Your task to perform on an android device: Go to Android settings Image 0: 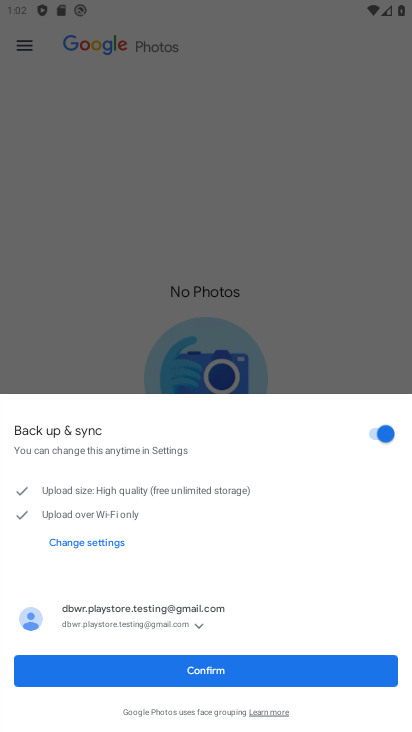
Step 0: press home button
Your task to perform on an android device: Go to Android settings Image 1: 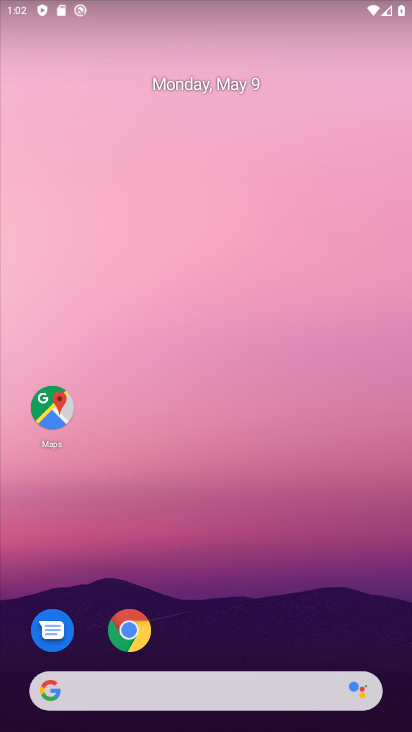
Step 1: drag from (244, 697) to (291, 288)
Your task to perform on an android device: Go to Android settings Image 2: 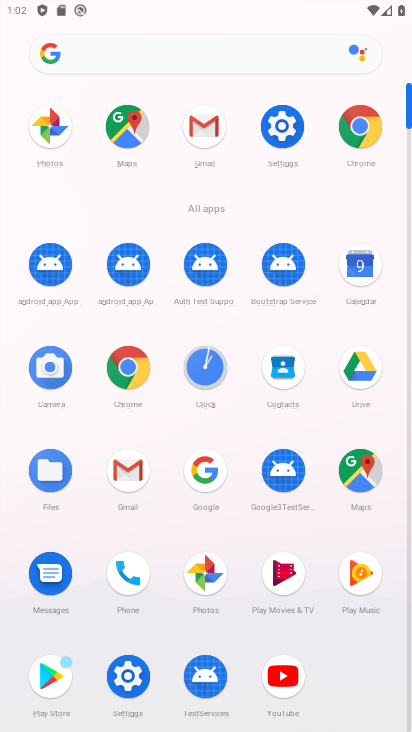
Step 2: click (268, 136)
Your task to perform on an android device: Go to Android settings Image 3: 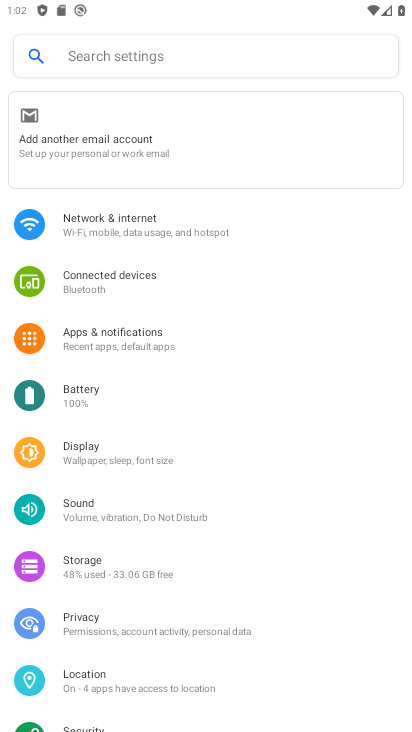
Step 3: click (135, 55)
Your task to perform on an android device: Go to Android settings Image 4: 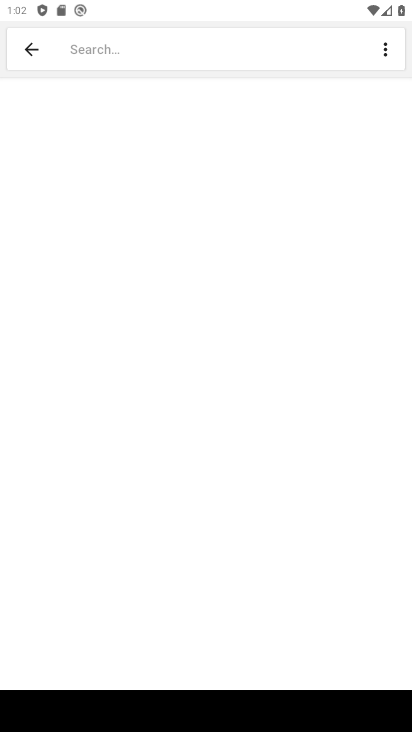
Step 4: drag from (384, 716) to (330, 630)
Your task to perform on an android device: Go to Android settings Image 5: 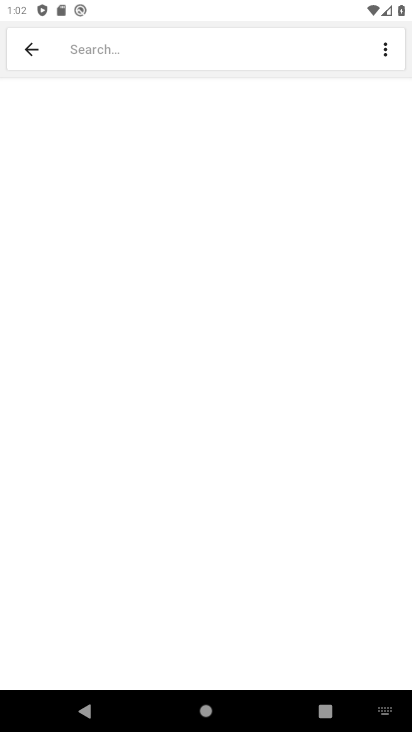
Step 5: click (388, 704)
Your task to perform on an android device: Go to Android settings Image 6: 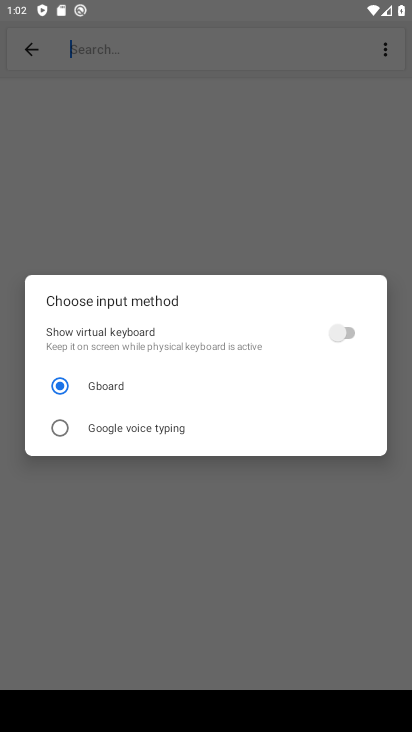
Step 6: click (346, 337)
Your task to perform on an android device: Go to Android settings Image 7: 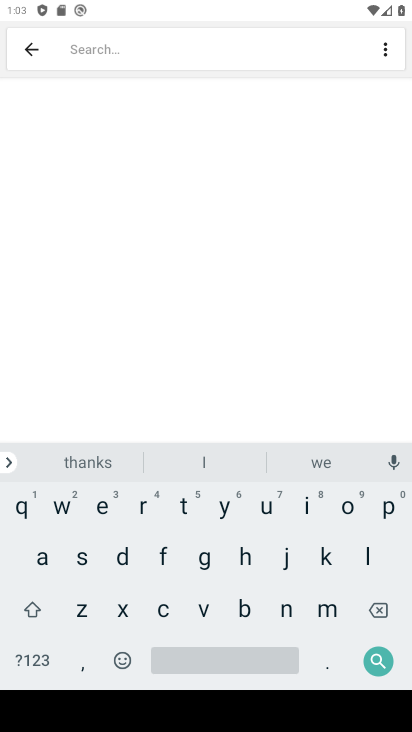
Step 7: click (39, 560)
Your task to perform on an android device: Go to Android settings Image 8: 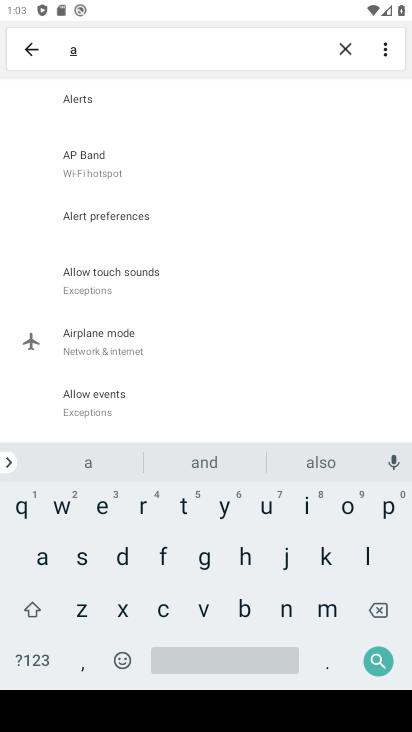
Step 8: click (284, 606)
Your task to perform on an android device: Go to Android settings Image 9: 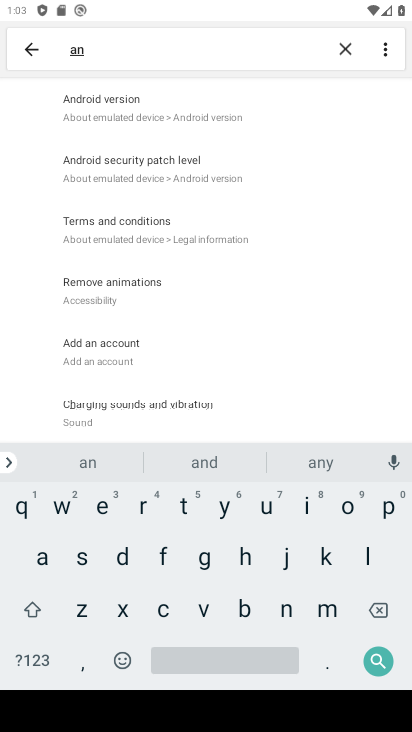
Step 9: click (118, 559)
Your task to perform on an android device: Go to Android settings Image 10: 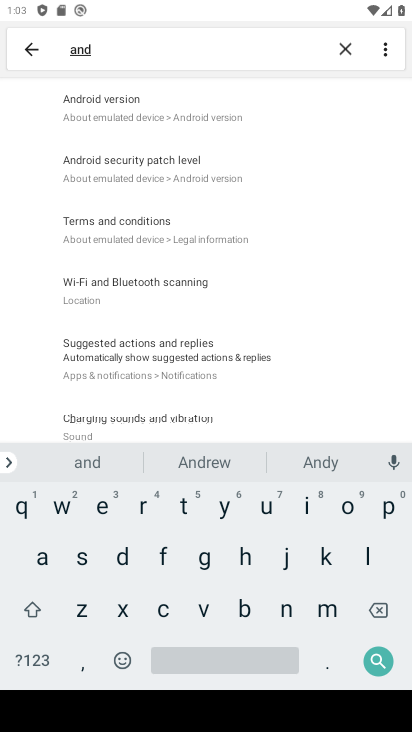
Step 10: click (151, 125)
Your task to perform on an android device: Go to Android settings Image 11: 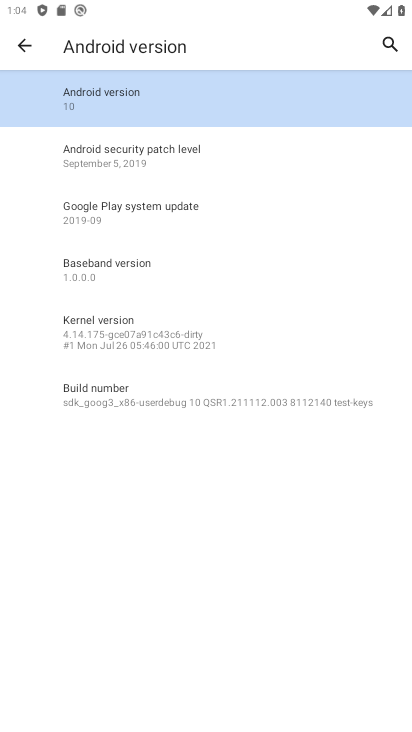
Step 11: task complete